Your task to perform on an android device: allow cookies in the chrome app Image 0: 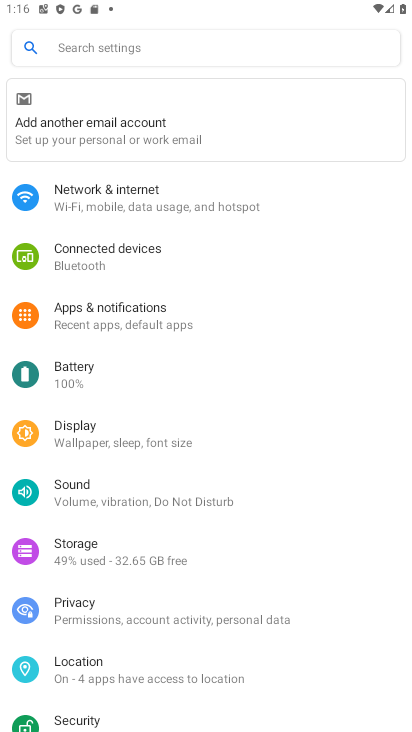
Step 0: press home button
Your task to perform on an android device: allow cookies in the chrome app Image 1: 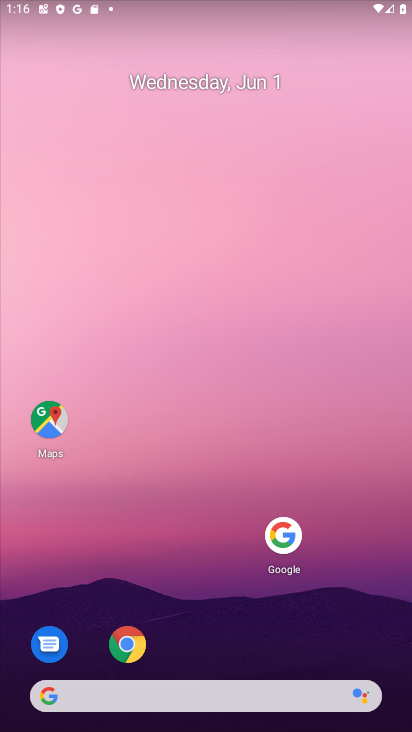
Step 1: click (131, 649)
Your task to perform on an android device: allow cookies in the chrome app Image 2: 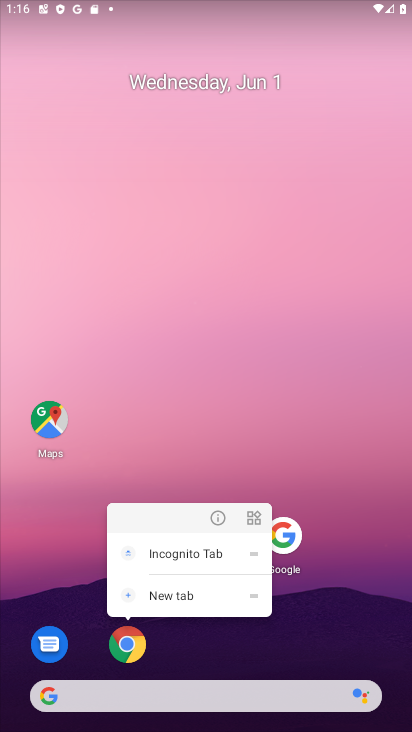
Step 2: click (128, 647)
Your task to perform on an android device: allow cookies in the chrome app Image 3: 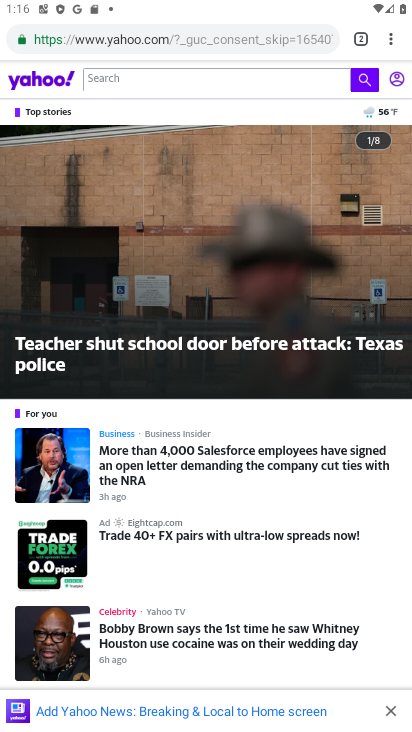
Step 3: drag from (391, 36) to (273, 507)
Your task to perform on an android device: allow cookies in the chrome app Image 4: 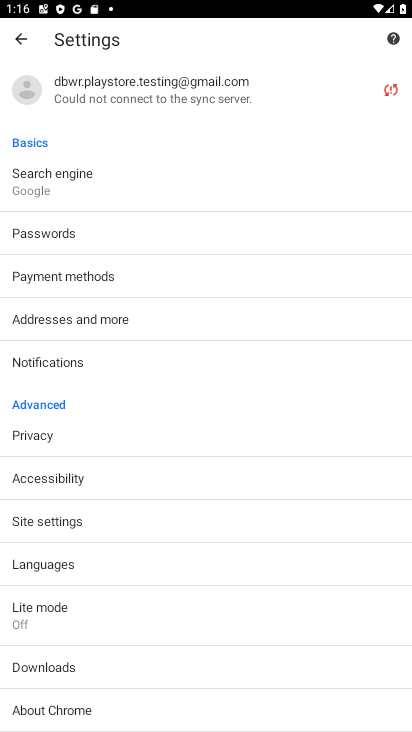
Step 4: click (64, 540)
Your task to perform on an android device: allow cookies in the chrome app Image 5: 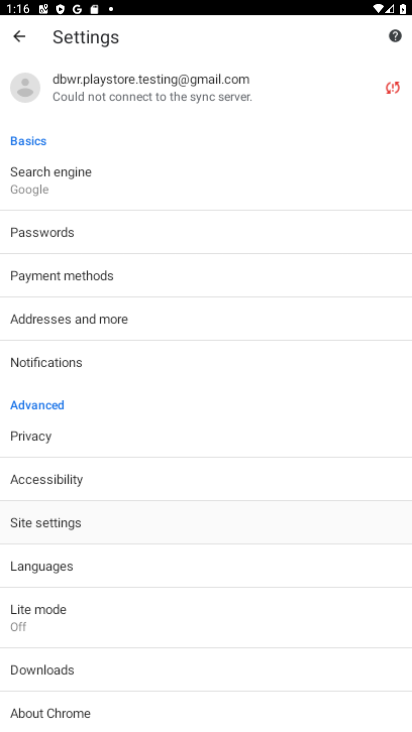
Step 5: click (71, 532)
Your task to perform on an android device: allow cookies in the chrome app Image 6: 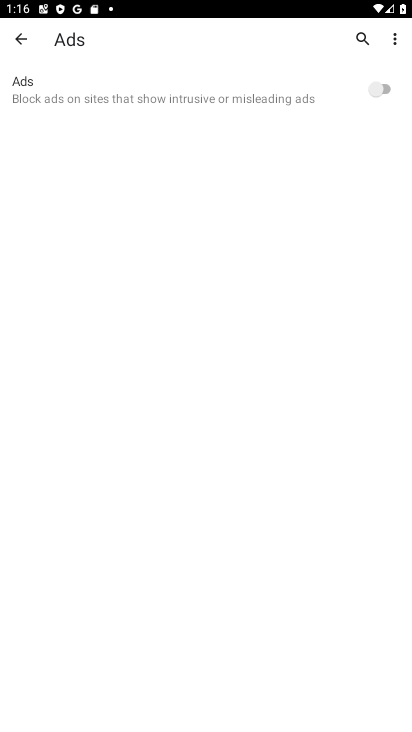
Step 6: click (20, 36)
Your task to perform on an android device: allow cookies in the chrome app Image 7: 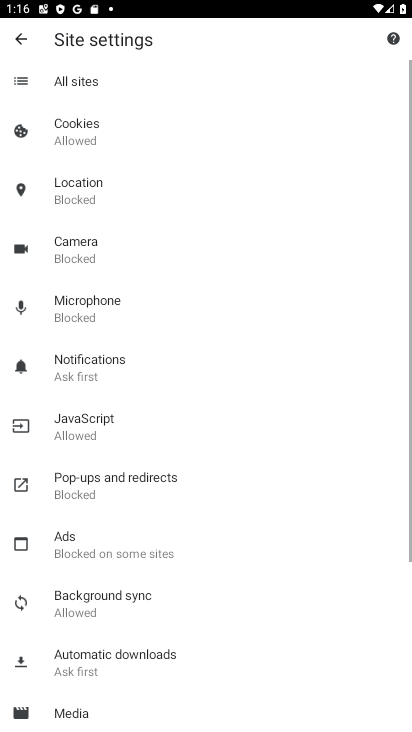
Step 7: drag from (243, 206) to (159, 582)
Your task to perform on an android device: allow cookies in the chrome app Image 8: 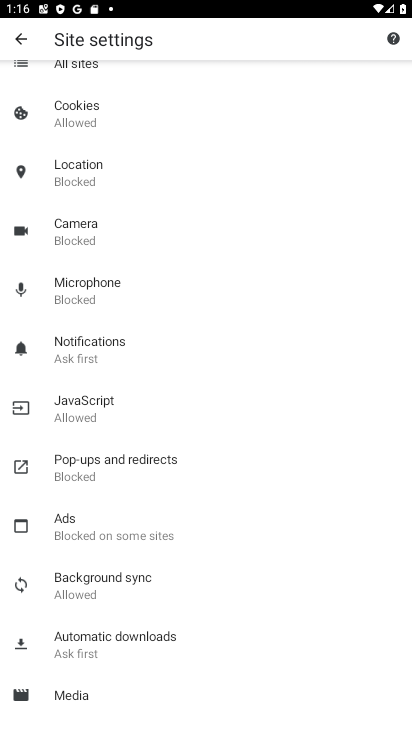
Step 8: click (83, 118)
Your task to perform on an android device: allow cookies in the chrome app Image 9: 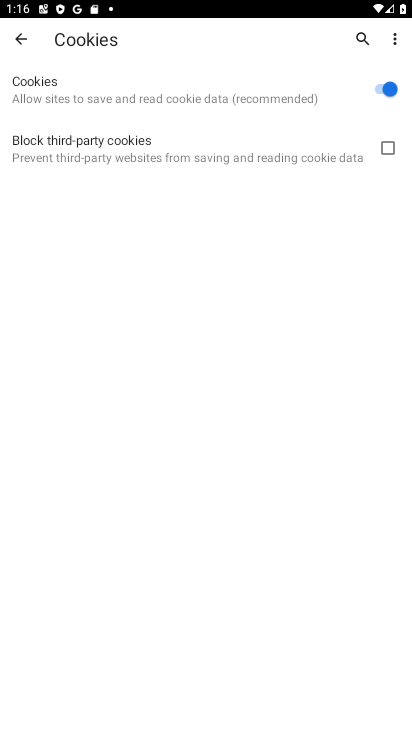
Step 9: task complete